Your task to perform on an android device: turn off picture-in-picture Image 0: 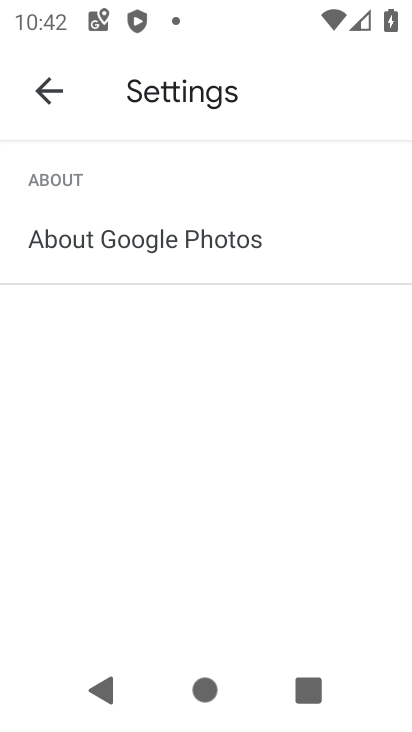
Step 0: press home button
Your task to perform on an android device: turn off picture-in-picture Image 1: 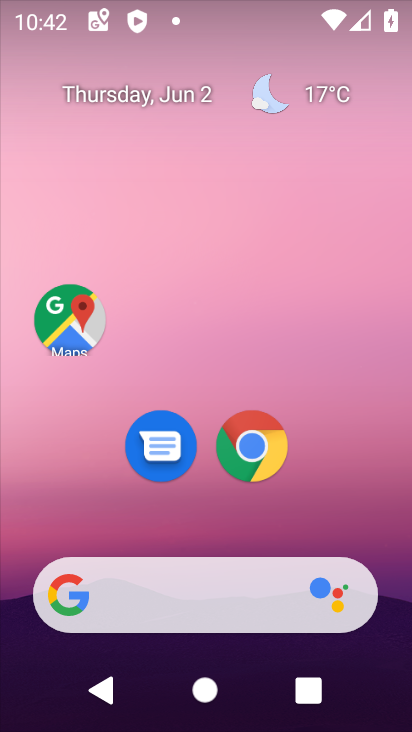
Step 1: click (257, 448)
Your task to perform on an android device: turn off picture-in-picture Image 2: 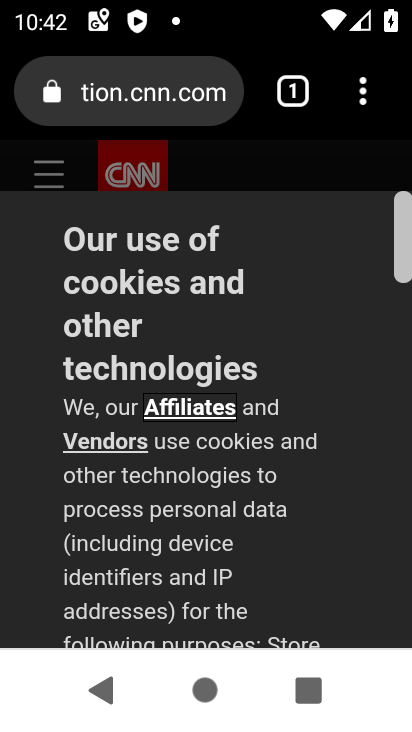
Step 2: press home button
Your task to perform on an android device: turn off picture-in-picture Image 3: 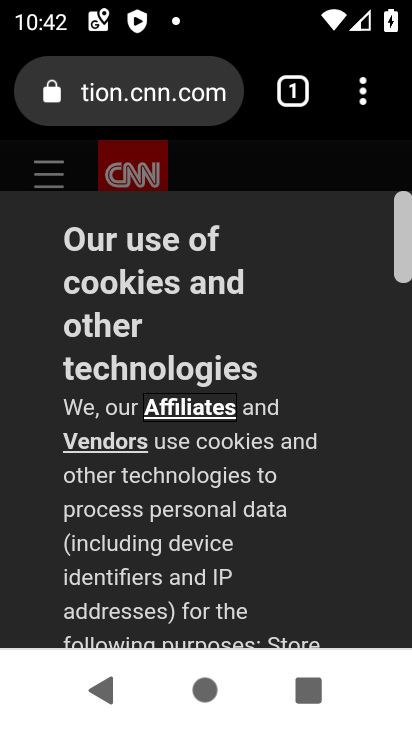
Step 3: press home button
Your task to perform on an android device: turn off picture-in-picture Image 4: 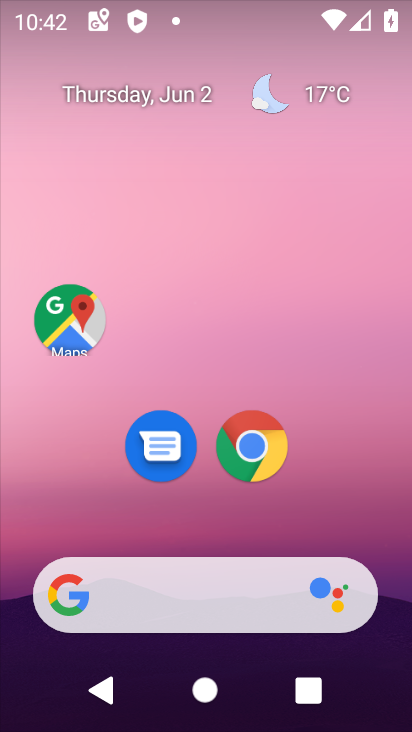
Step 4: click (253, 450)
Your task to perform on an android device: turn off picture-in-picture Image 5: 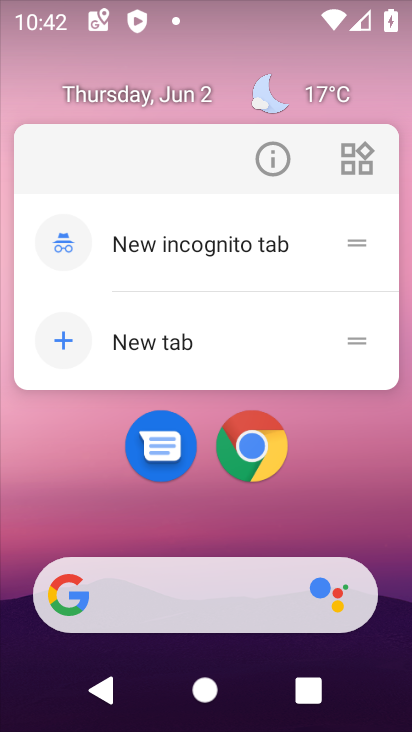
Step 5: click (282, 161)
Your task to perform on an android device: turn off picture-in-picture Image 6: 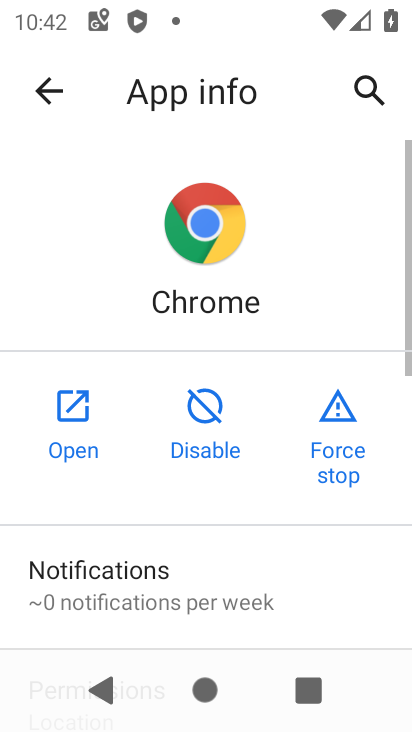
Step 6: drag from (204, 571) to (243, 89)
Your task to perform on an android device: turn off picture-in-picture Image 7: 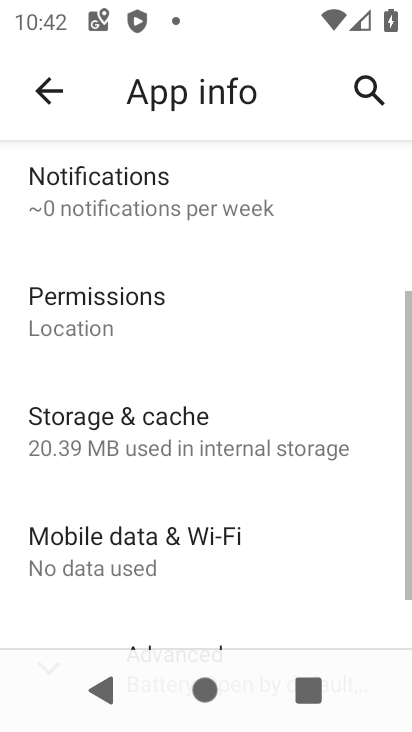
Step 7: click (248, 59)
Your task to perform on an android device: turn off picture-in-picture Image 8: 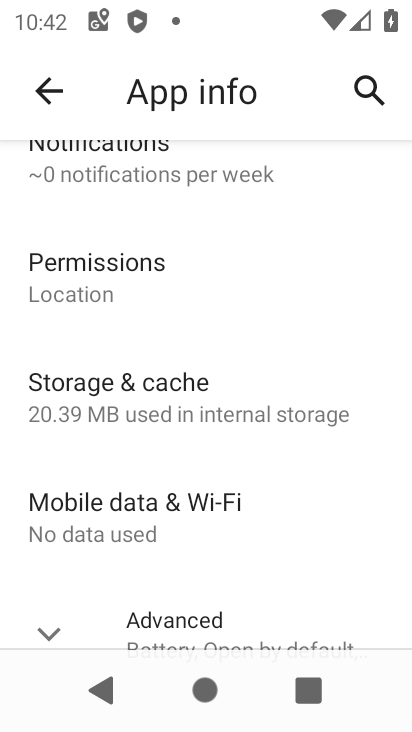
Step 8: drag from (194, 495) to (287, 107)
Your task to perform on an android device: turn off picture-in-picture Image 9: 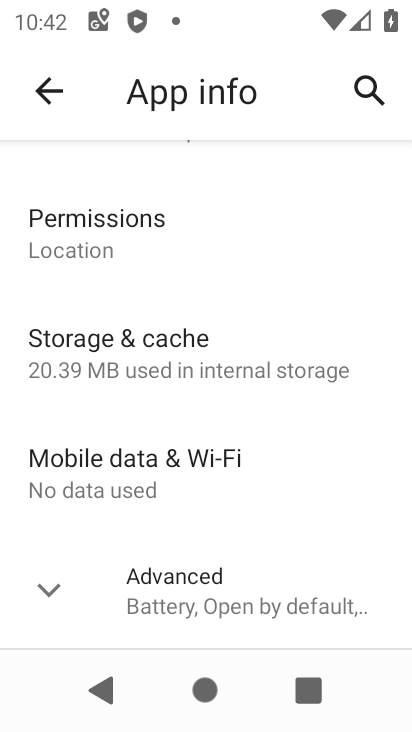
Step 9: click (162, 585)
Your task to perform on an android device: turn off picture-in-picture Image 10: 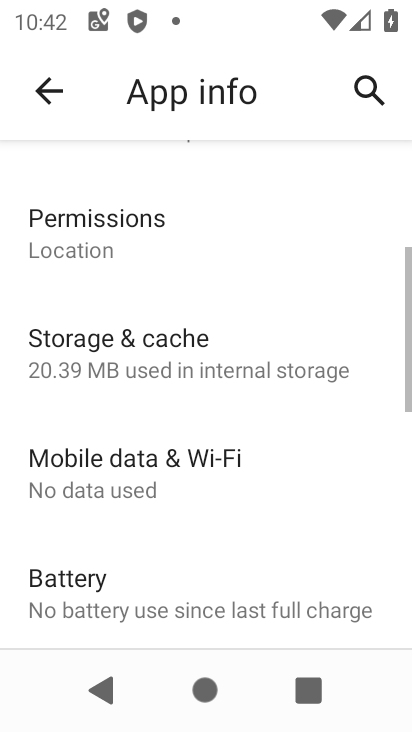
Step 10: drag from (223, 582) to (278, 128)
Your task to perform on an android device: turn off picture-in-picture Image 11: 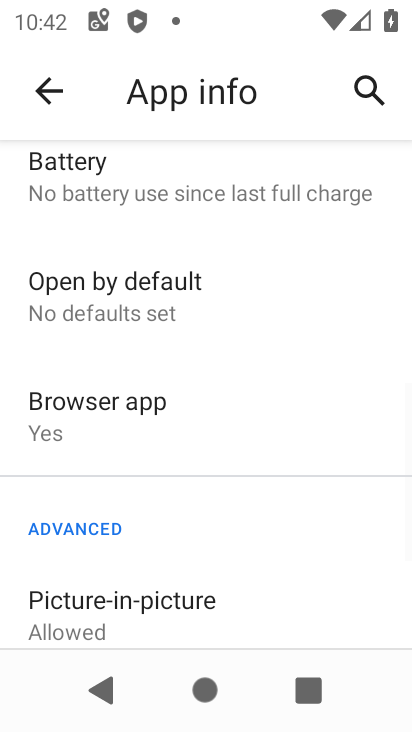
Step 11: drag from (133, 571) to (236, 209)
Your task to perform on an android device: turn off picture-in-picture Image 12: 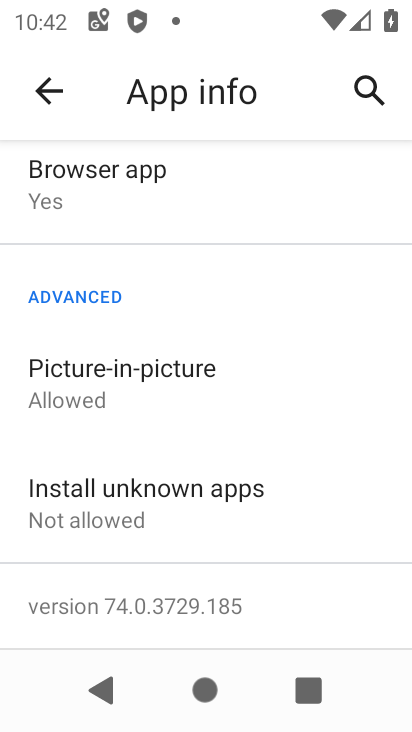
Step 12: click (164, 424)
Your task to perform on an android device: turn off picture-in-picture Image 13: 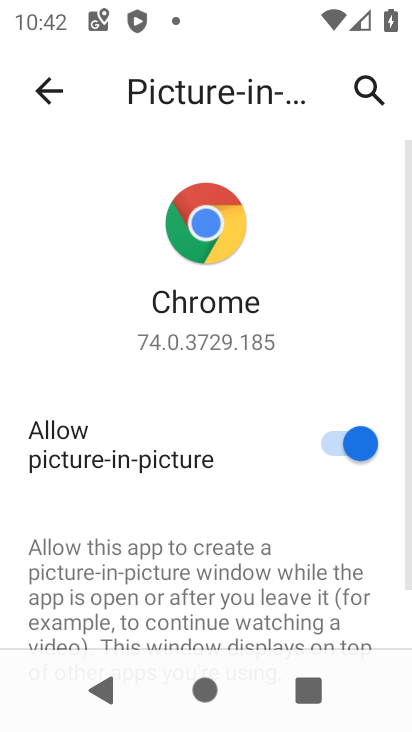
Step 13: click (344, 444)
Your task to perform on an android device: turn off picture-in-picture Image 14: 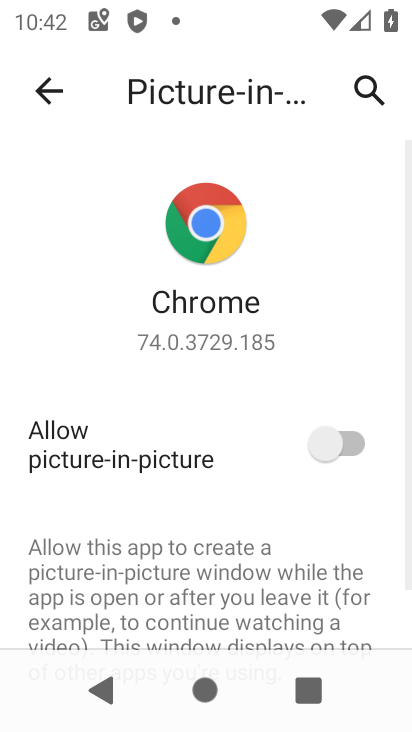
Step 14: task complete